Your task to perform on an android device: Open Amazon Image 0: 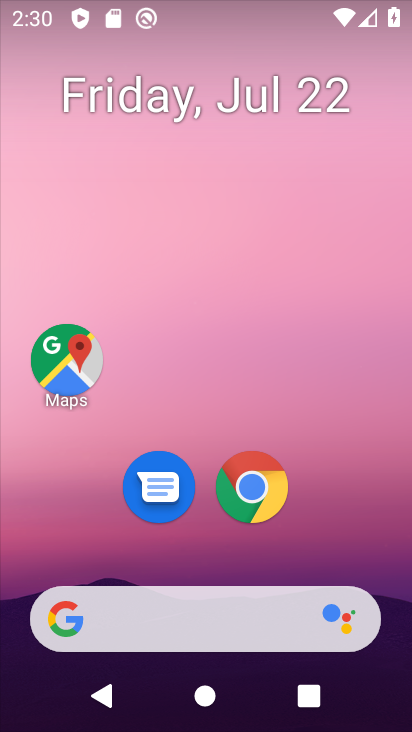
Step 0: click (267, 492)
Your task to perform on an android device: Open Amazon Image 1: 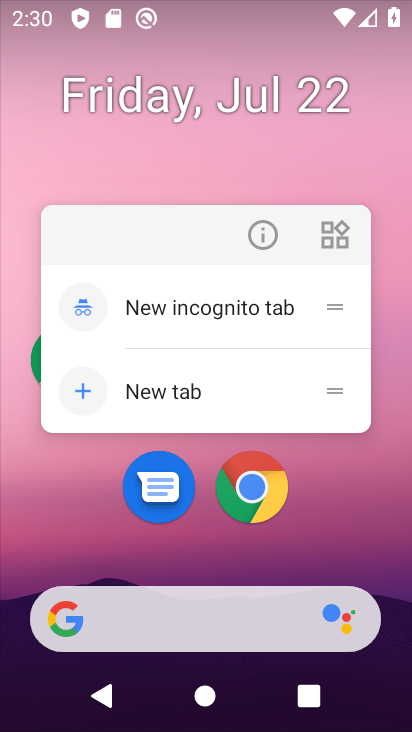
Step 1: click (255, 486)
Your task to perform on an android device: Open Amazon Image 2: 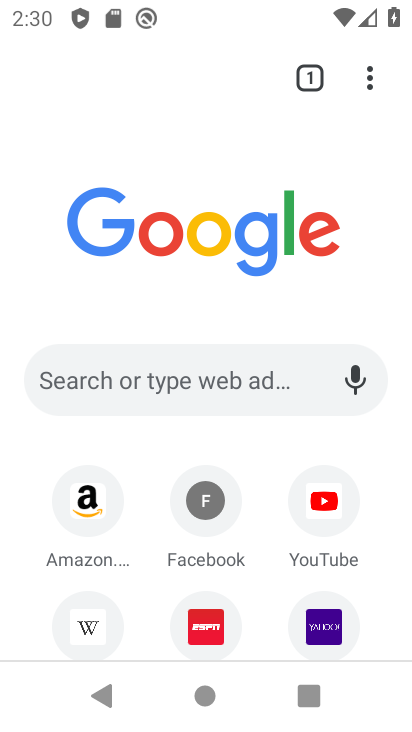
Step 2: click (93, 501)
Your task to perform on an android device: Open Amazon Image 3: 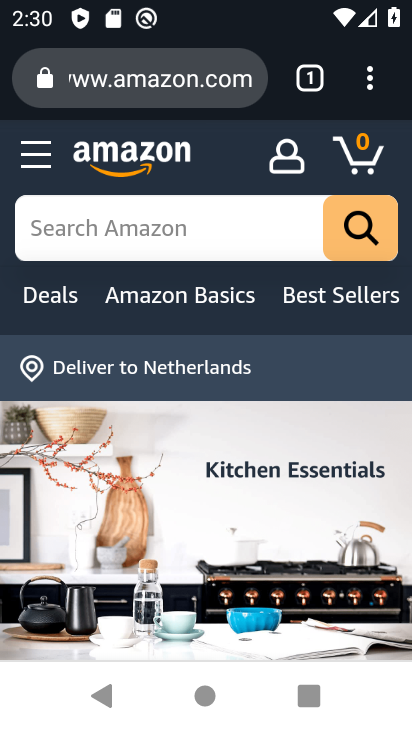
Step 3: task complete